Your task to perform on an android device: find photos in the google photos app Image 0: 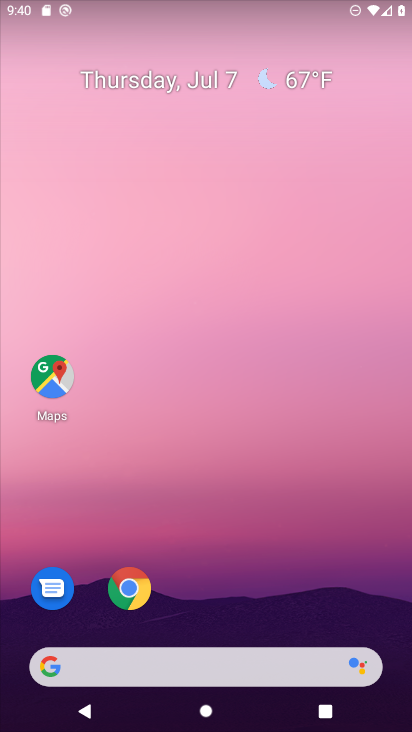
Step 0: drag from (231, 575) to (151, 122)
Your task to perform on an android device: find photos in the google photos app Image 1: 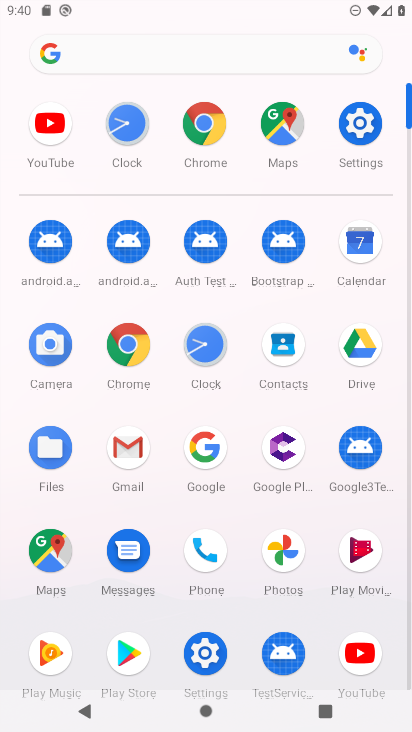
Step 1: click (285, 548)
Your task to perform on an android device: find photos in the google photos app Image 2: 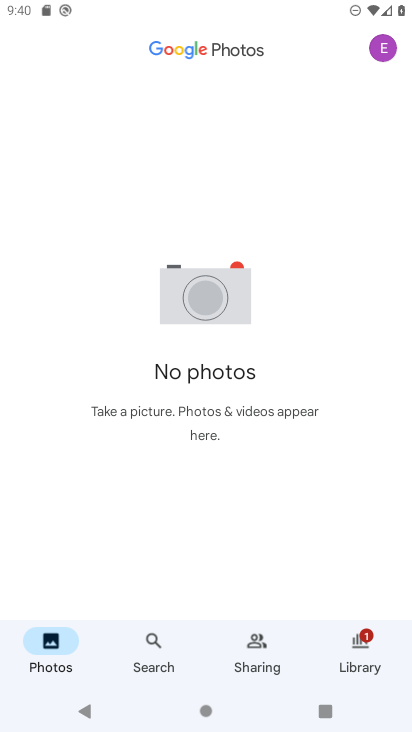
Step 2: click (361, 652)
Your task to perform on an android device: find photos in the google photos app Image 3: 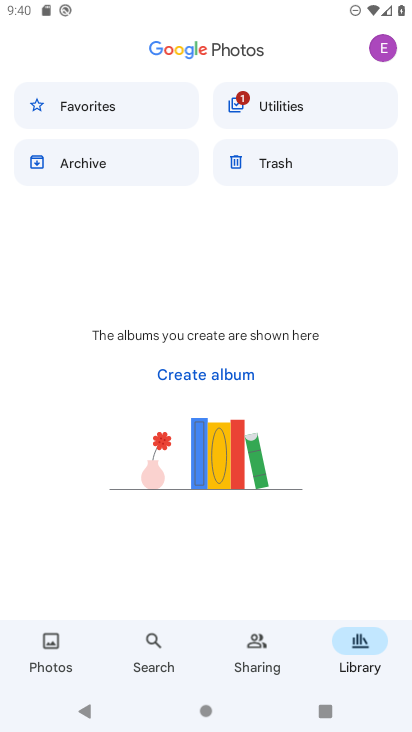
Step 3: click (248, 107)
Your task to perform on an android device: find photos in the google photos app Image 4: 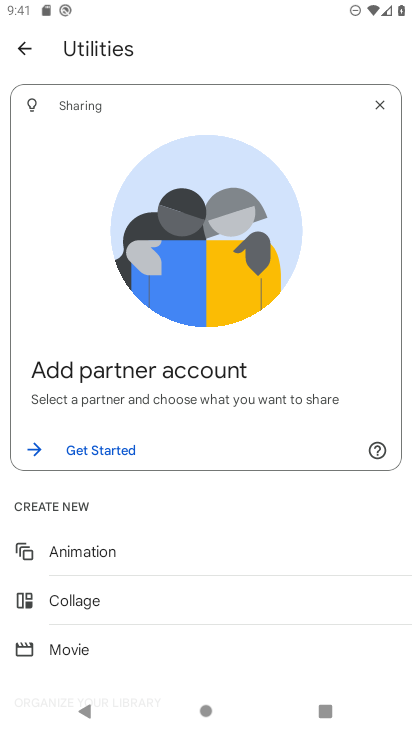
Step 4: drag from (166, 541) to (243, 386)
Your task to perform on an android device: find photos in the google photos app Image 5: 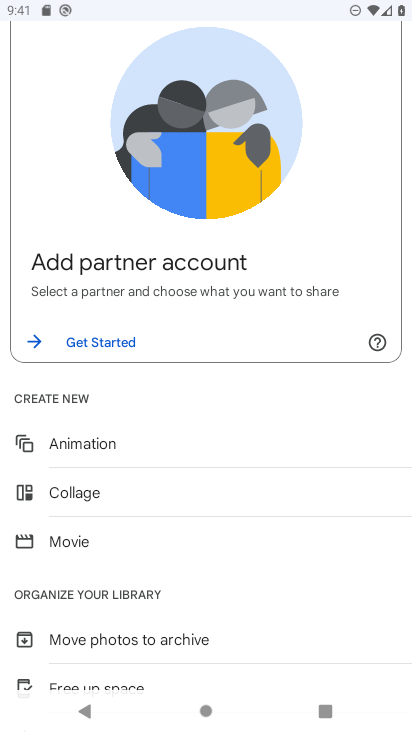
Step 5: drag from (209, 582) to (298, 431)
Your task to perform on an android device: find photos in the google photos app Image 6: 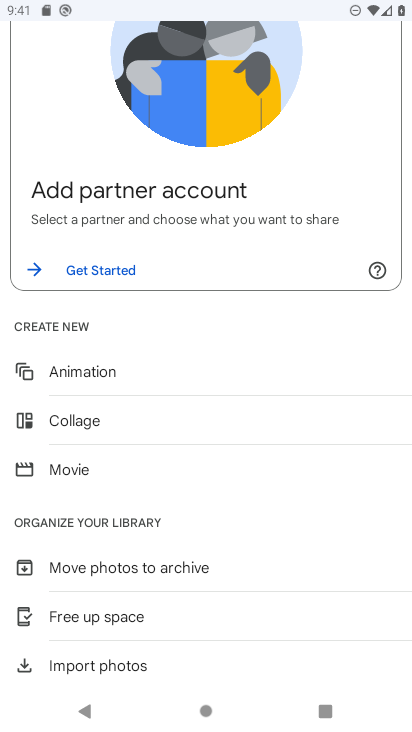
Step 6: press back button
Your task to perform on an android device: find photos in the google photos app Image 7: 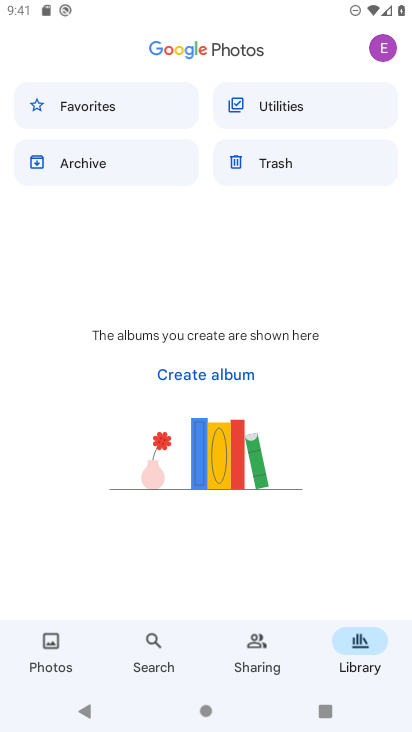
Step 7: click (73, 108)
Your task to perform on an android device: find photos in the google photos app Image 8: 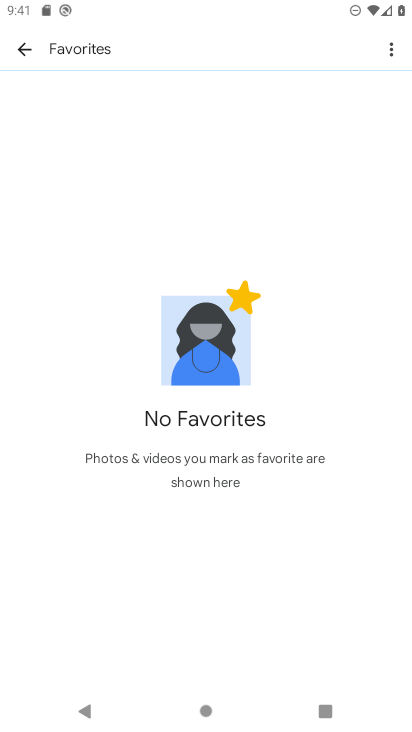
Step 8: click (207, 483)
Your task to perform on an android device: find photos in the google photos app Image 9: 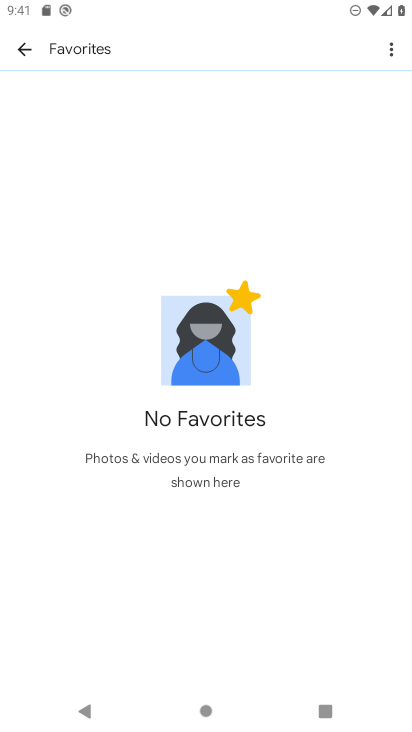
Step 9: press back button
Your task to perform on an android device: find photos in the google photos app Image 10: 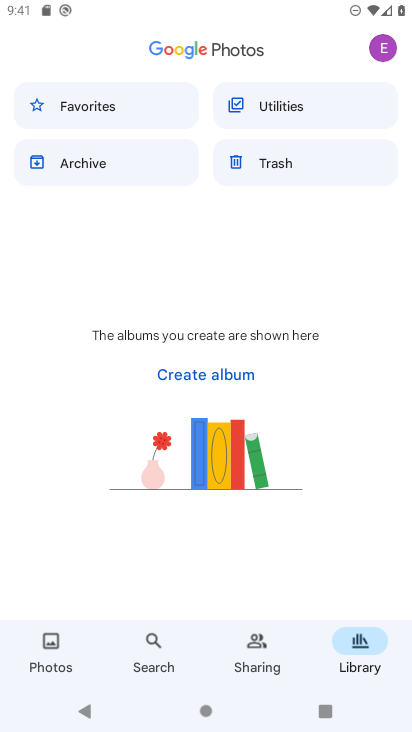
Step 10: click (144, 651)
Your task to perform on an android device: find photos in the google photos app Image 11: 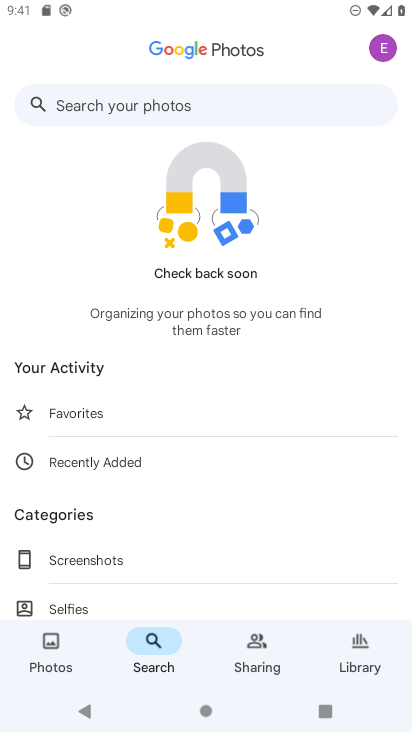
Step 11: click (144, 651)
Your task to perform on an android device: find photos in the google photos app Image 12: 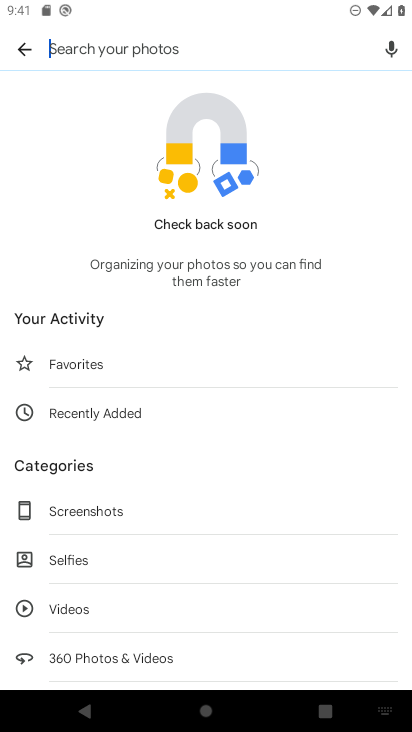
Step 12: click (94, 566)
Your task to perform on an android device: find photos in the google photos app Image 13: 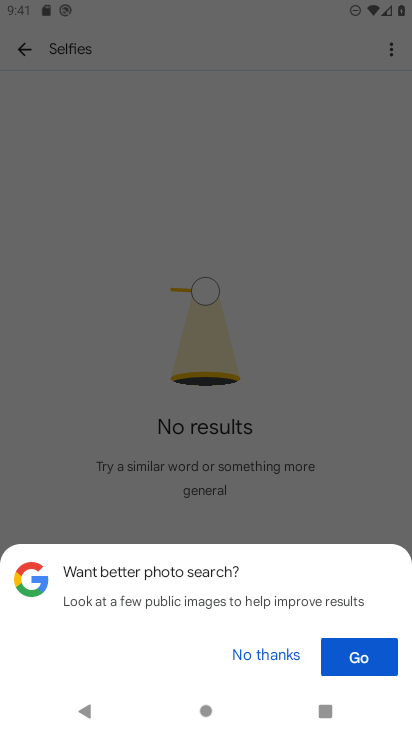
Step 13: click (241, 656)
Your task to perform on an android device: find photos in the google photos app Image 14: 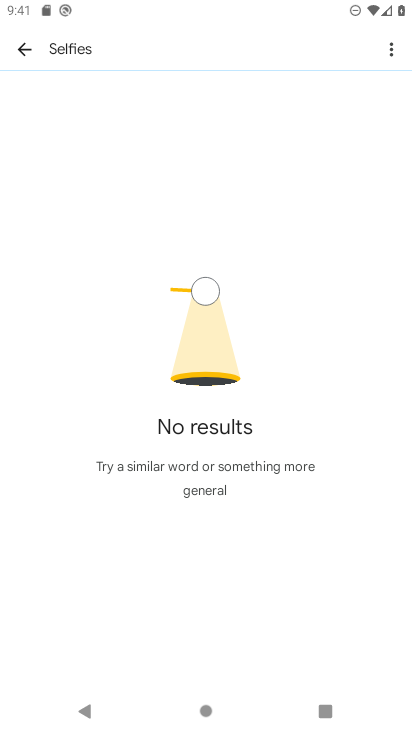
Step 14: task complete